Your task to perform on an android device: Go to display settings Image 0: 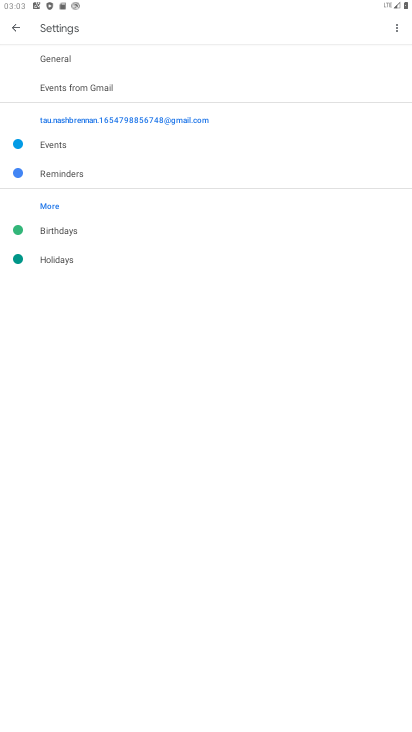
Step 0: press home button
Your task to perform on an android device: Go to display settings Image 1: 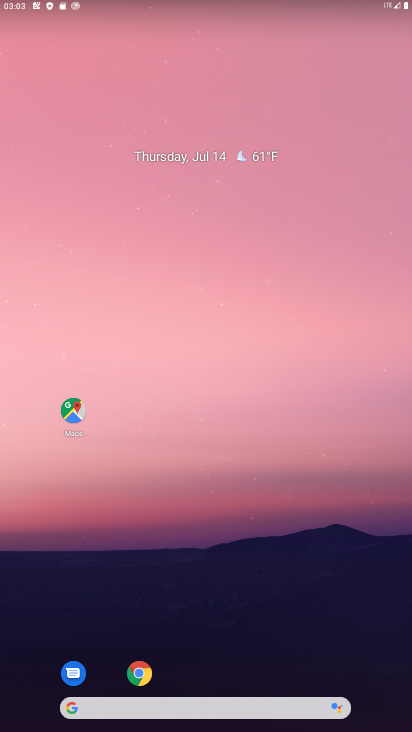
Step 1: drag from (193, 677) to (172, 336)
Your task to perform on an android device: Go to display settings Image 2: 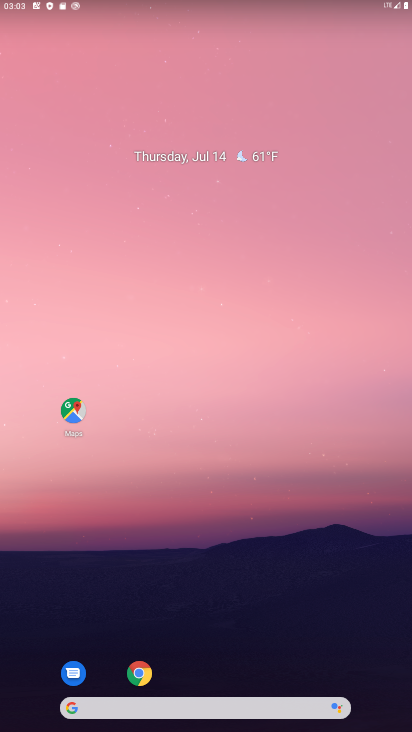
Step 2: drag from (209, 657) to (236, 229)
Your task to perform on an android device: Go to display settings Image 3: 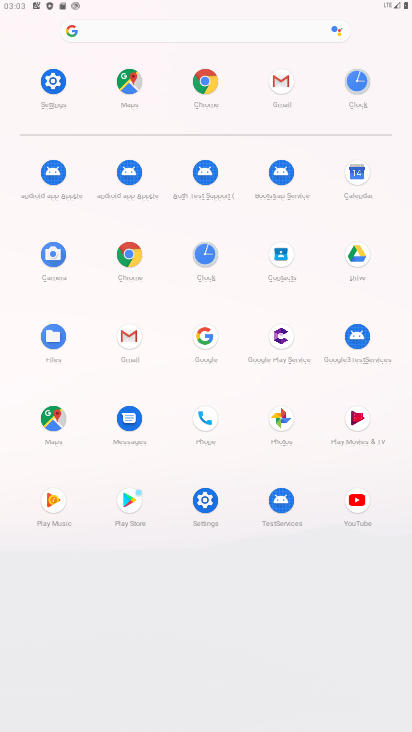
Step 3: click (52, 89)
Your task to perform on an android device: Go to display settings Image 4: 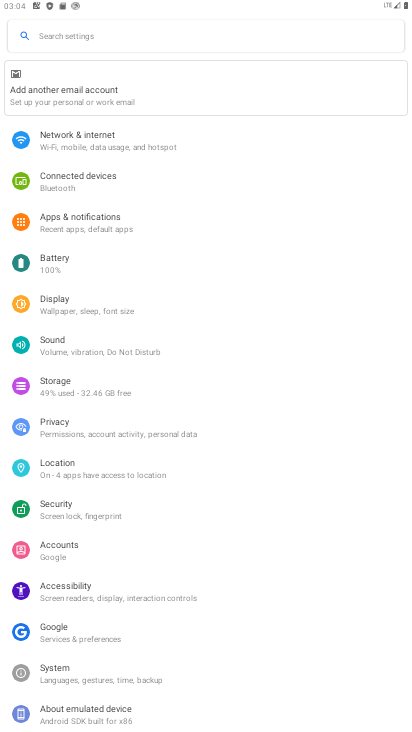
Step 4: click (85, 305)
Your task to perform on an android device: Go to display settings Image 5: 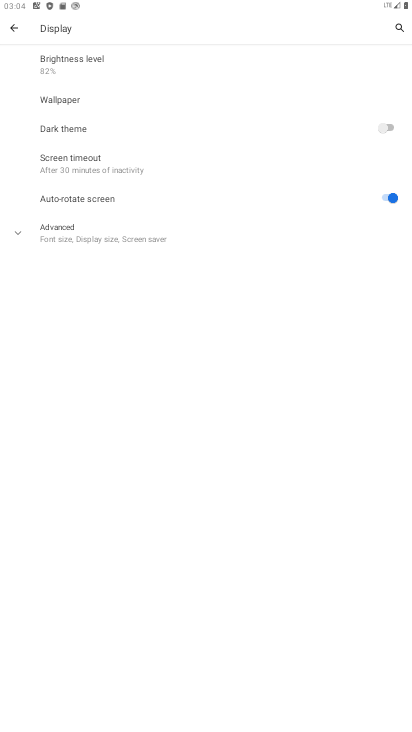
Step 5: task complete